Your task to perform on an android device: Turn off the flashlight Image 0: 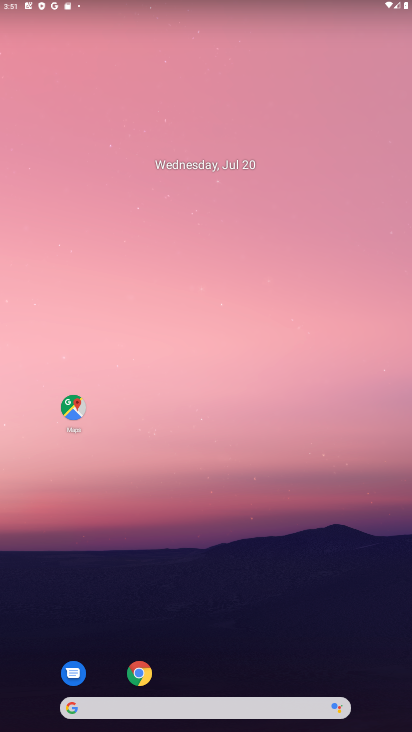
Step 0: press home button
Your task to perform on an android device: Turn off the flashlight Image 1: 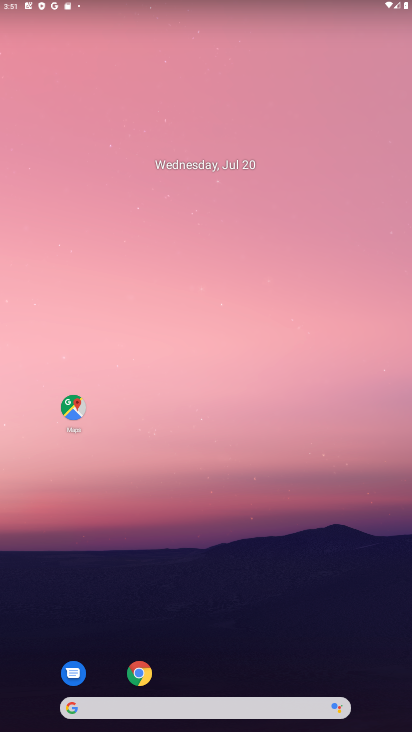
Step 1: task complete